Your task to perform on an android device: Open Chrome and go to settings Image 0: 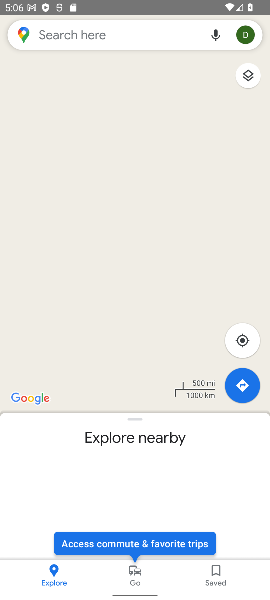
Step 0: press home button
Your task to perform on an android device: Open Chrome and go to settings Image 1: 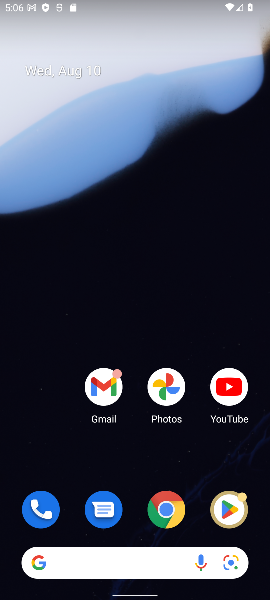
Step 1: drag from (189, 443) to (202, 154)
Your task to perform on an android device: Open Chrome and go to settings Image 2: 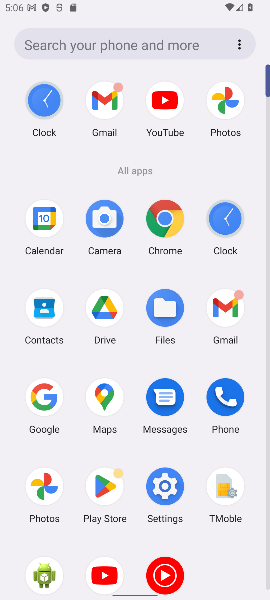
Step 2: click (164, 226)
Your task to perform on an android device: Open Chrome and go to settings Image 3: 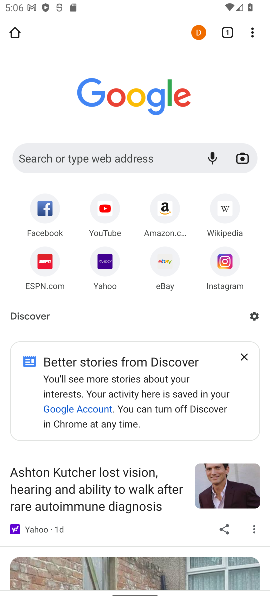
Step 3: click (257, 33)
Your task to perform on an android device: Open Chrome and go to settings Image 4: 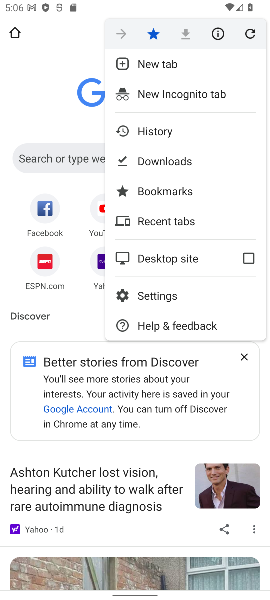
Step 4: click (172, 298)
Your task to perform on an android device: Open Chrome and go to settings Image 5: 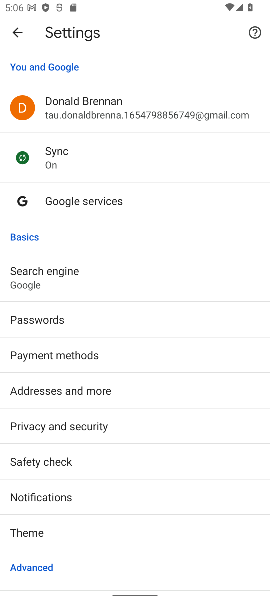
Step 5: task complete